Your task to perform on an android device: Open eBay Image 0: 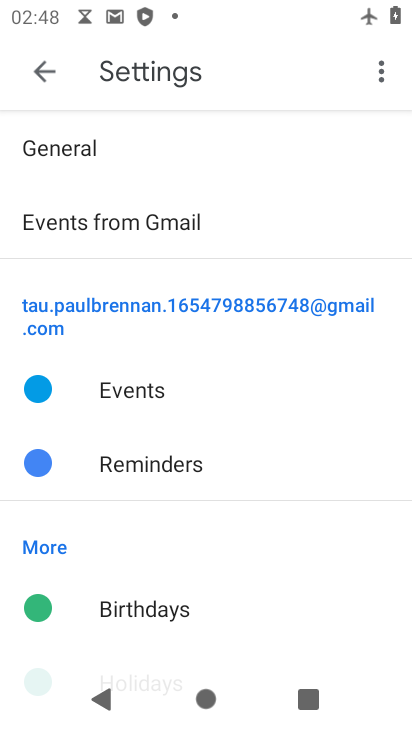
Step 0: press home button
Your task to perform on an android device: Open eBay Image 1: 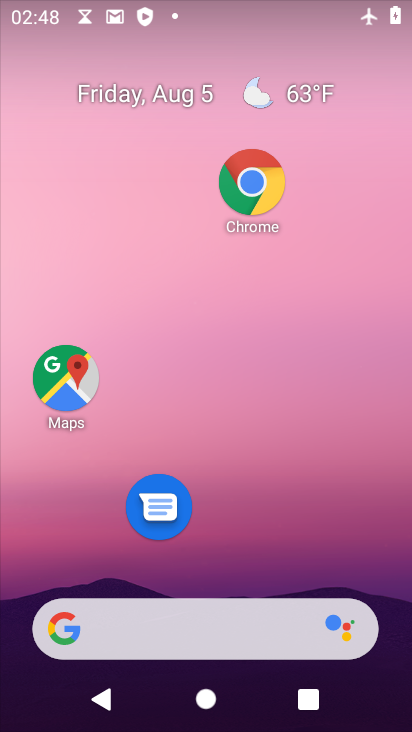
Step 1: click (260, 202)
Your task to perform on an android device: Open eBay Image 2: 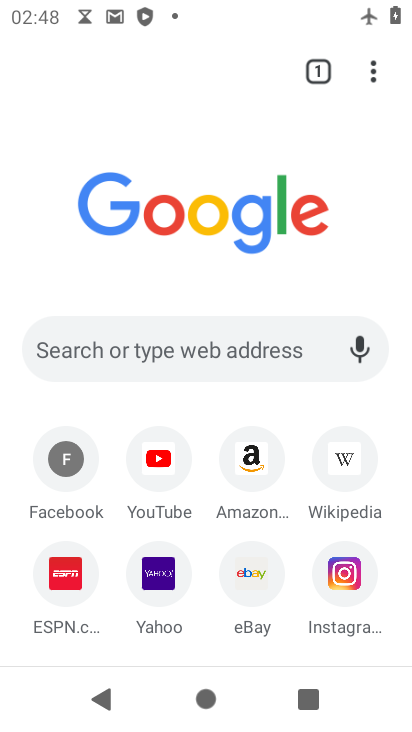
Step 2: click (253, 601)
Your task to perform on an android device: Open eBay Image 3: 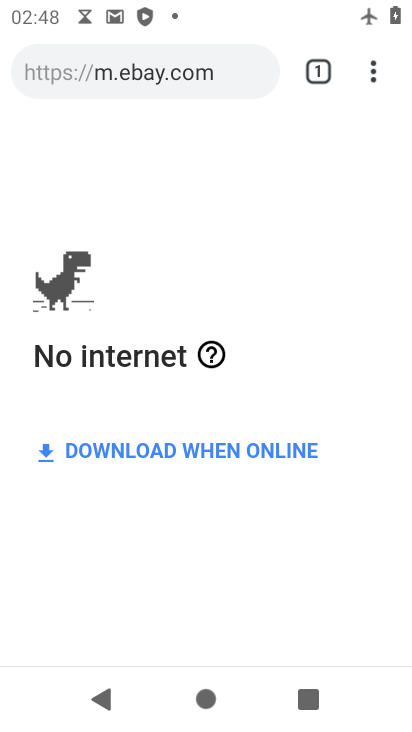
Step 3: task complete